Your task to perform on an android device: Open location settings Image 0: 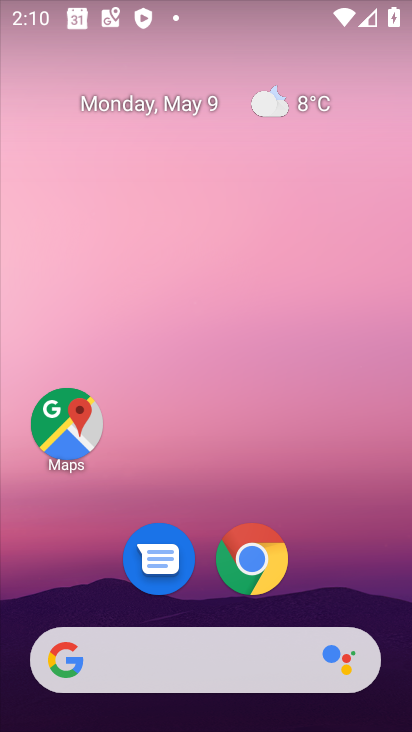
Step 0: drag from (332, 575) to (228, 85)
Your task to perform on an android device: Open location settings Image 1: 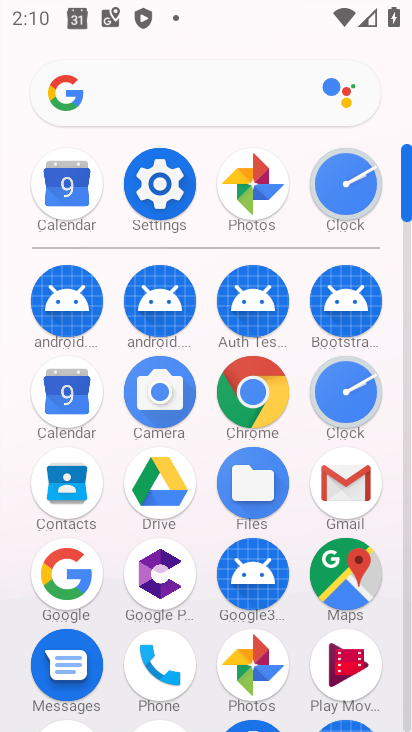
Step 1: click (159, 180)
Your task to perform on an android device: Open location settings Image 2: 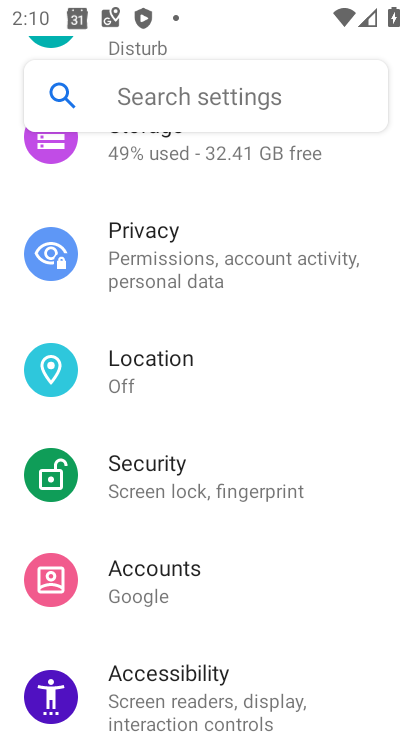
Step 2: click (132, 354)
Your task to perform on an android device: Open location settings Image 3: 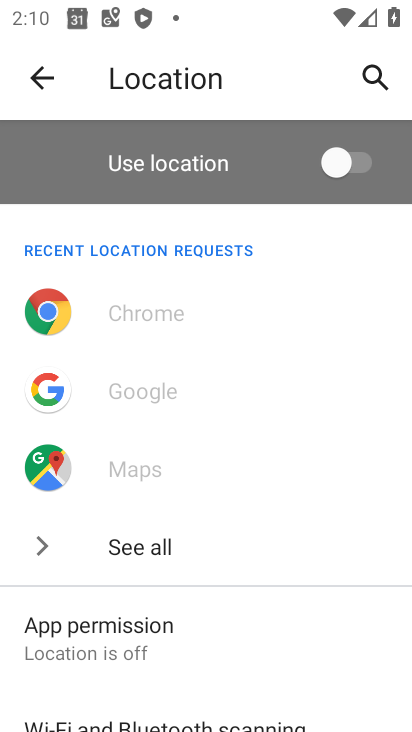
Step 3: task complete